Your task to perform on an android device: turn off translation in the chrome app Image 0: 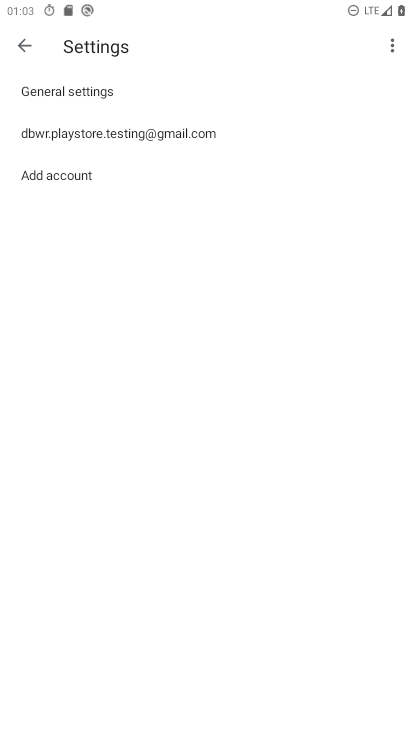
Step 0: press home button
Your task to perform on an android device: turn off translation in the chrome app Image 1: 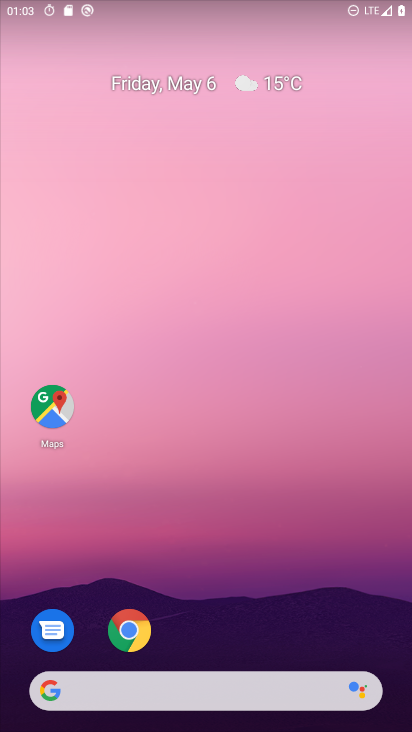
Step 1: click (132, 626)
Your task to perform on an android device: turn off translation in the chrome app Image 2: 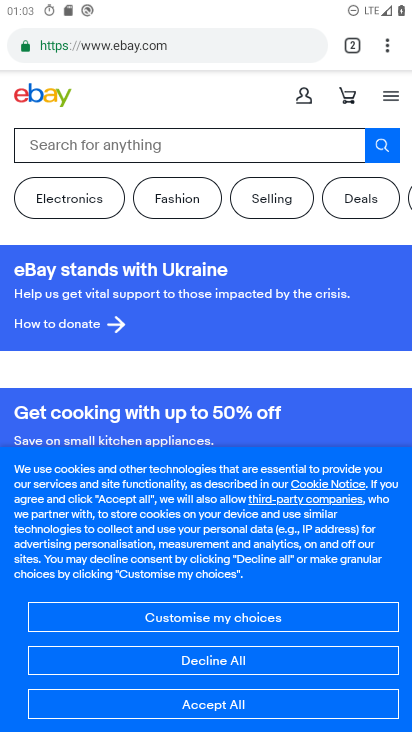
Step 2: drag from (388, 42) to (247, 604)
Your task to perform on an android device: turn off translation in the chrome app Image 3: 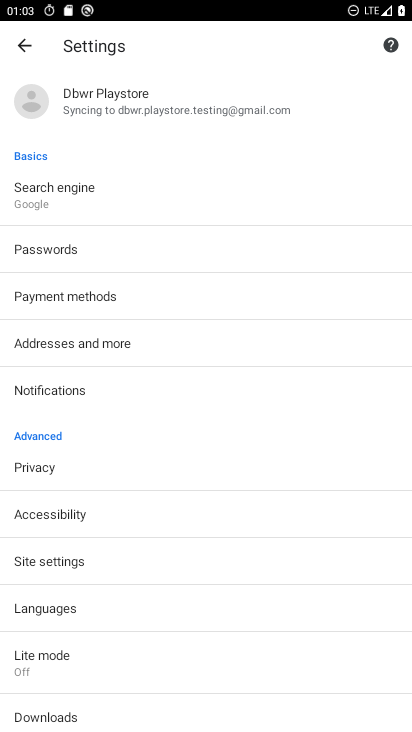
Step 3: click (76, 609)
Your task to perform on an android device: turn off translation in the chrome app Image 4: 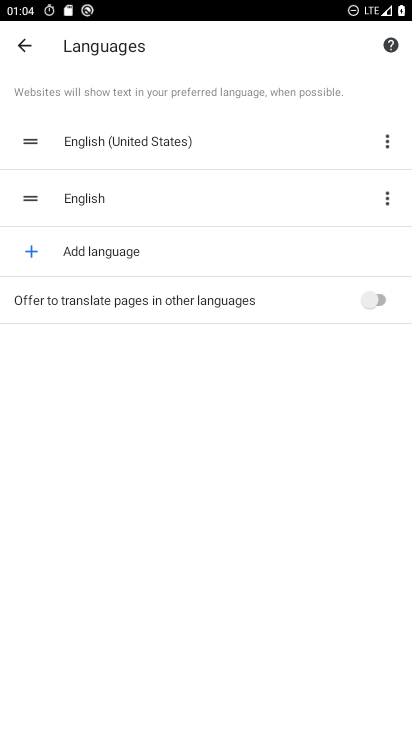
Step 4: task complete